Your task to perform on an android device: Open calendar and show me the second week of next month Image 0: 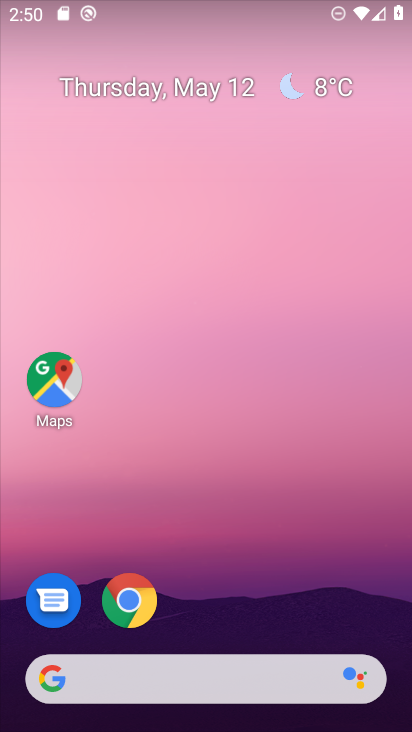
Step 0: drag from (212, 721) to (203, 147)
Your task to perform on an android device: Open calendar and show me the second week of next month Image 1: 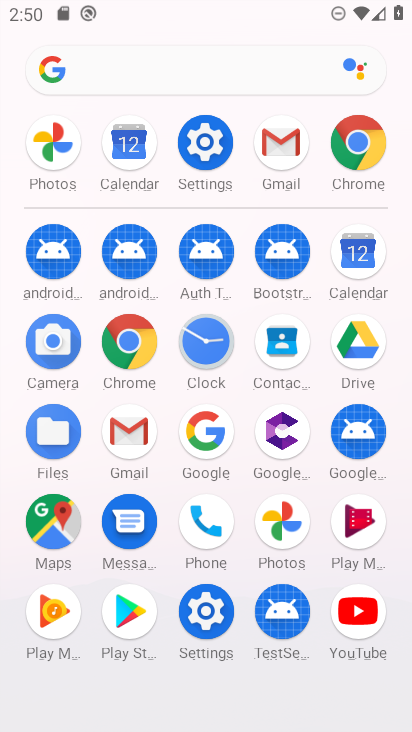
Step 1: click (349, 261)
Your task to perform on an android device: Open calendar and show me the second week of next month Image 2: 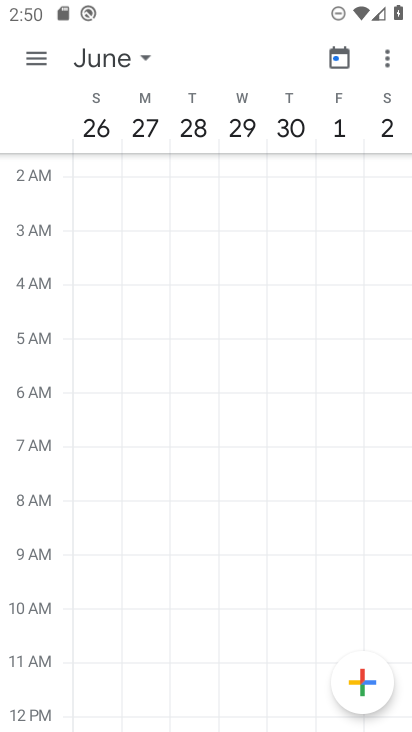
Step 2: click (146, 55)
Your task to perform on an android device: Open calendar and show me the second week of next month Image 3: 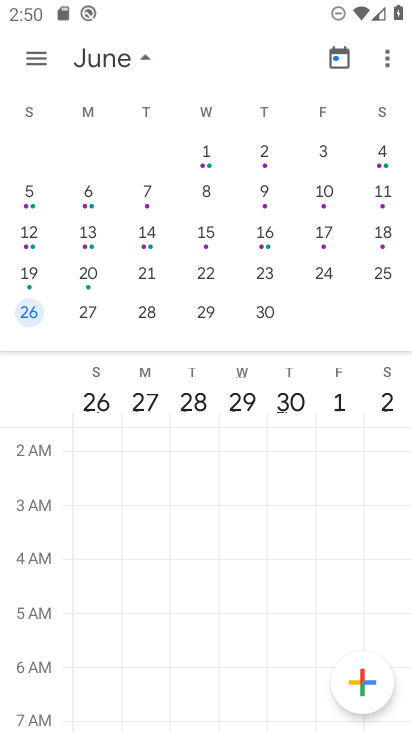
Step 3: click (82, 233)
Your task to perform on an android device: Open calendar and show me the second week of next month Image 4: 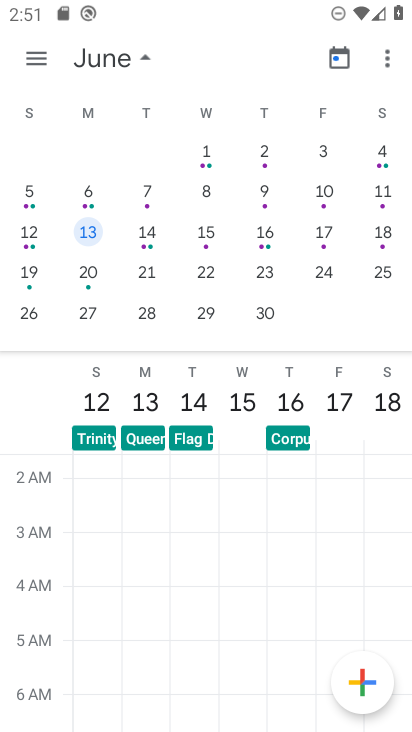
Step 4: task complete